Your task to perform on an android device: show emergency info Image 0: 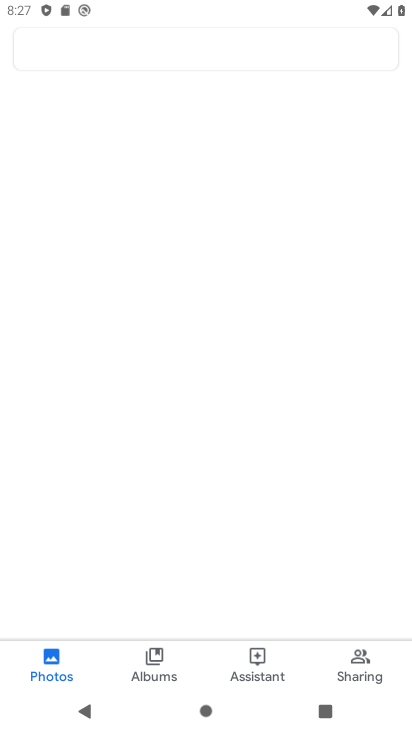
Step 0: click (247, 116)
Your task to perform on an android device: show emergency info Image 1: 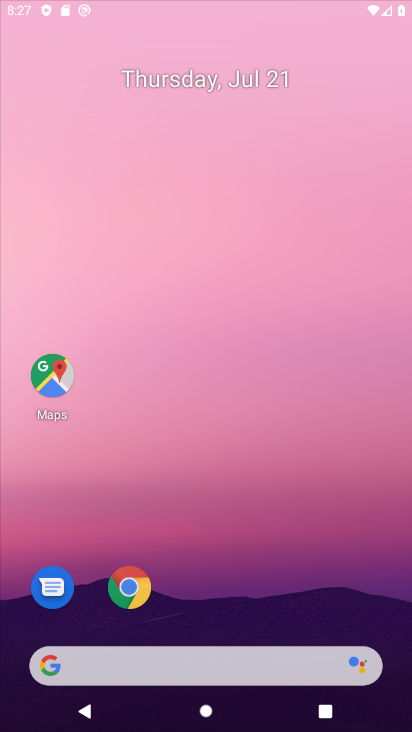
Step 1: drag from (167, 221) to (159, 99)
Your task to perform on an android device: show emergency info Image 2: 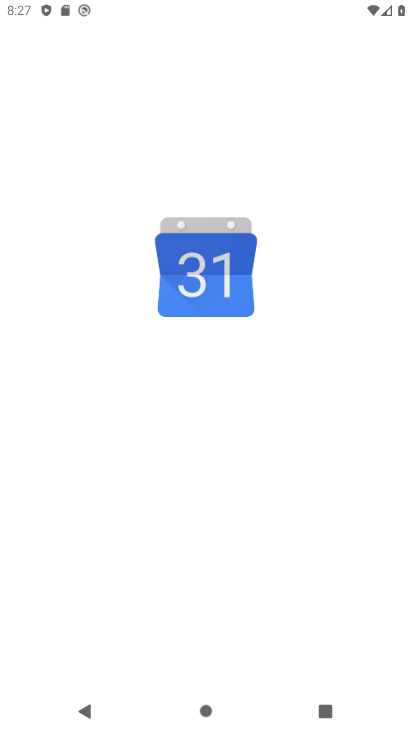
Step 2: drag from (192, 587) to (234, 211)
Your task to perform on an android device: show emergency info Image 3: 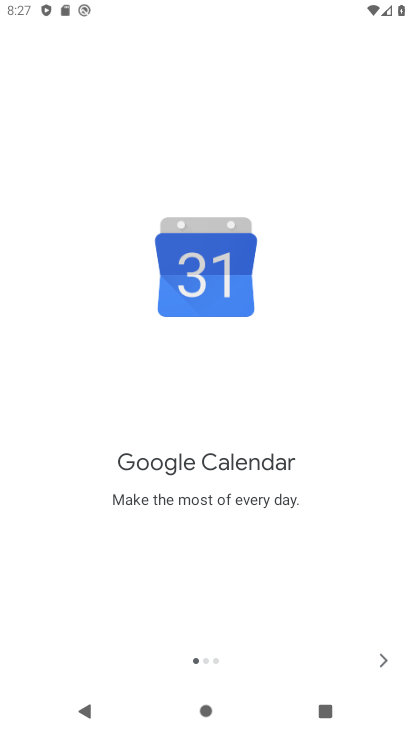
Step 3: press back button
Your task to perform on an android device: show emergency info Image 4: 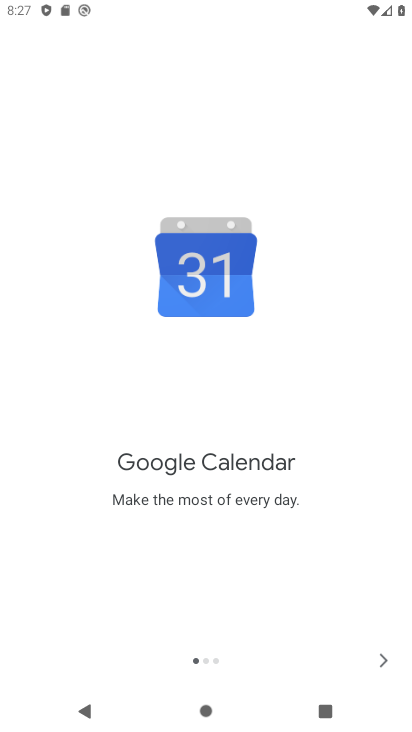
Step 4: press back button
Your task to perform on an android device: show emergency info Image 5: 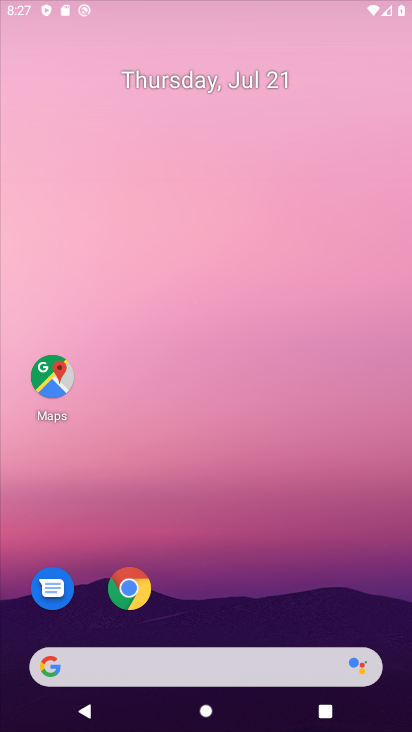
Step 5: press back button
Your task to perform on an android device: show emergency info Image 6: 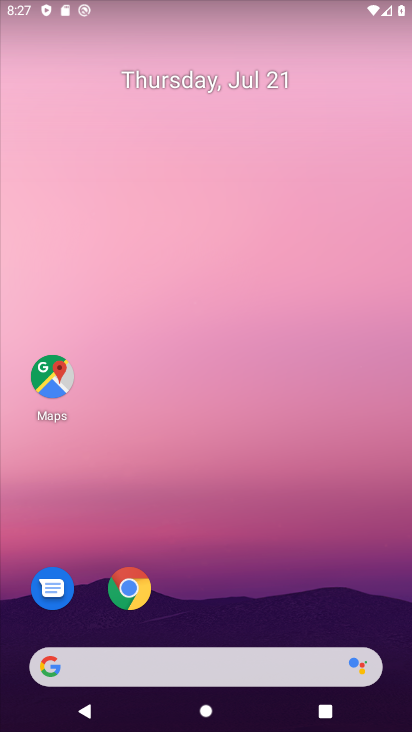
Step 6: drag from (284, 540) to (247, 150)
Your task to perform on an android device: show emergency info Image 7: 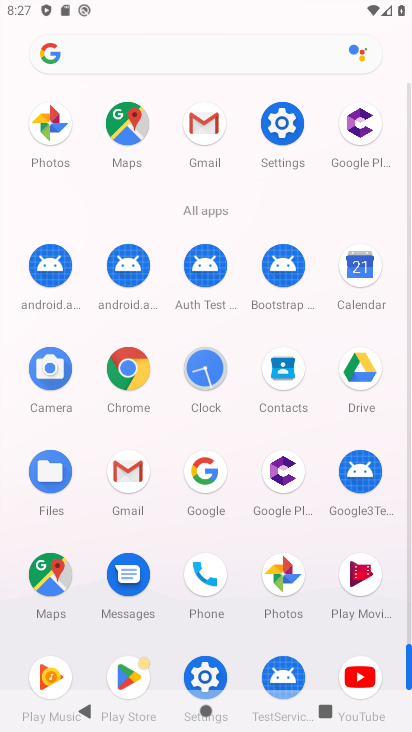
Step 7: click (300, 118)
Your task to perform on an android device: show emergency info Image 8: 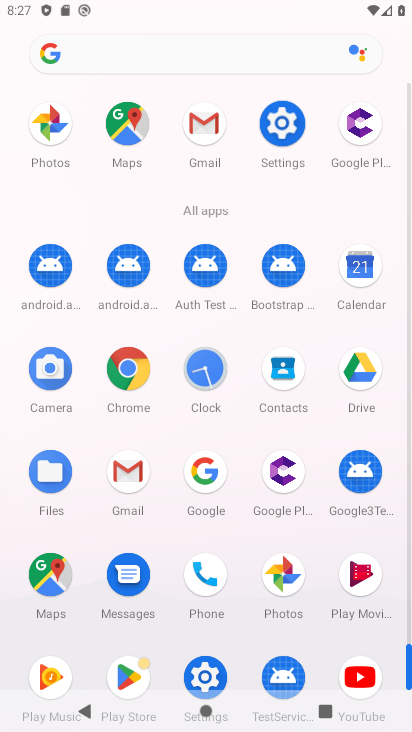
Step 8: click (275, 122)
Your task to perform on an android device: show emergency info Image 9: 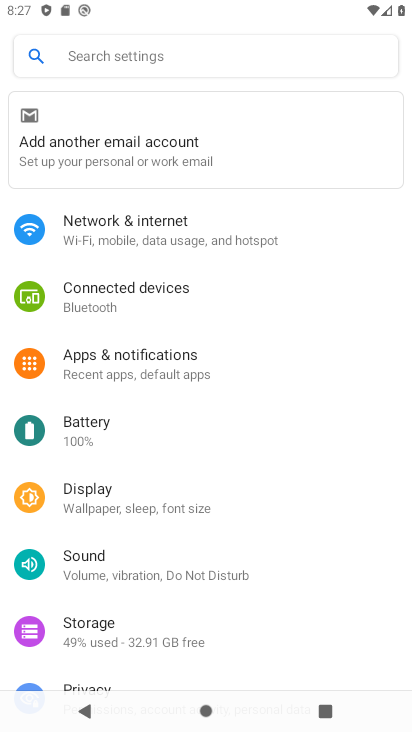
Step 9: drag from (150, 657) to (204, 236)
Your task to perform on an android device: show emergency info Image 10: 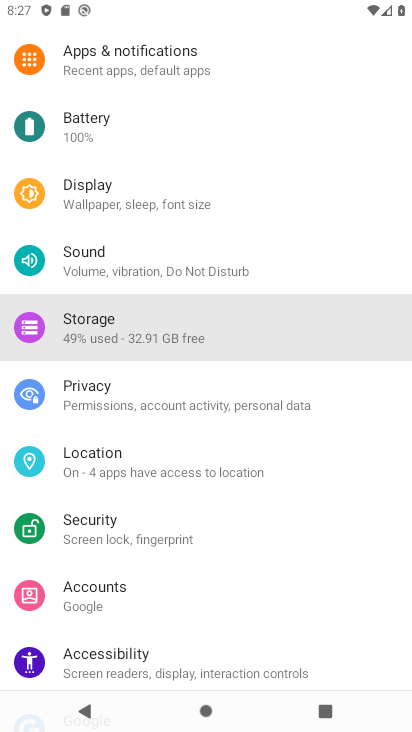
Step 10: drag from (171, 491) to (157, 161)
Your task to perform on an android device: show emergency info Image 11: 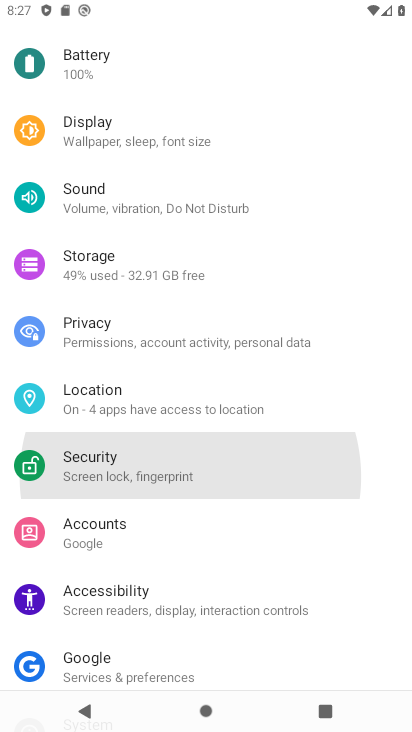
Step 11: drag from (116, 498) to (116, 224)
Your task to perform on an android device: show emergency info Image 12: 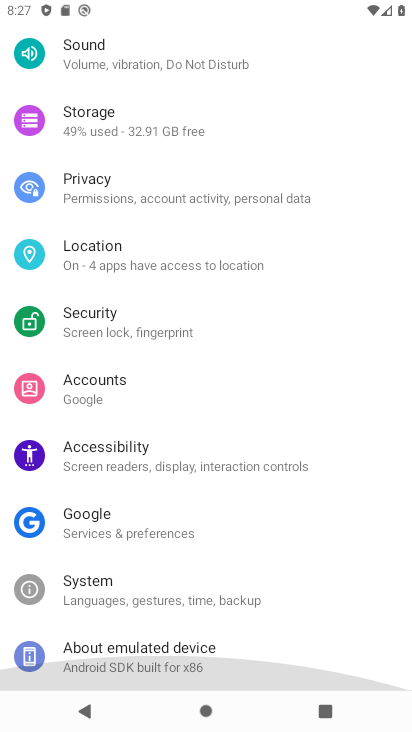
Step 12: drag from (121, 488) to (148, 244)
Your task to perform on an android device: show emergency info Image 13: 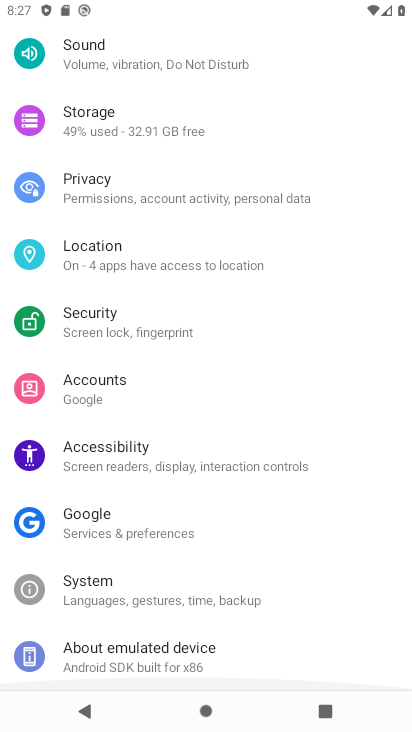
Step 13: click (141, 661)
Your task to perform on an android device: show emergency info Image 14: 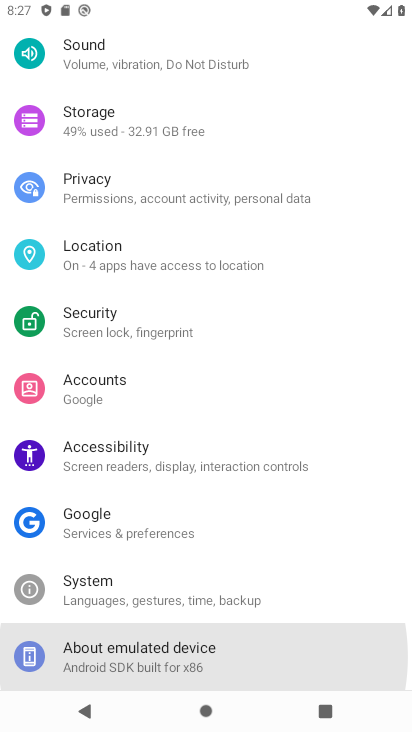
Step 14: click (140, 662)
Your task to perform on an android device: show emergency info Image 15: 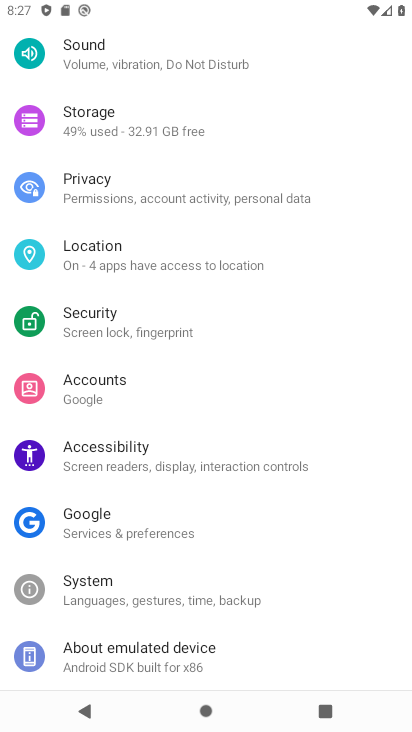
Step 15: click (139, 663)
Your task to perform on an android device: show emergency info Image 16: 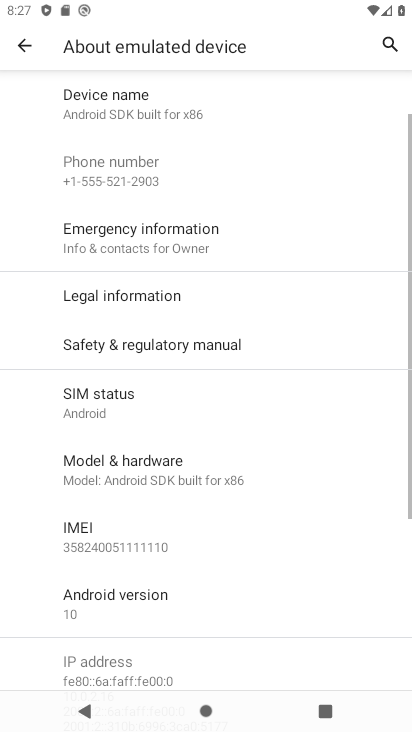
Step 16: click (117, 242)
Your task to perform on an android device: show emergency info Image 17: 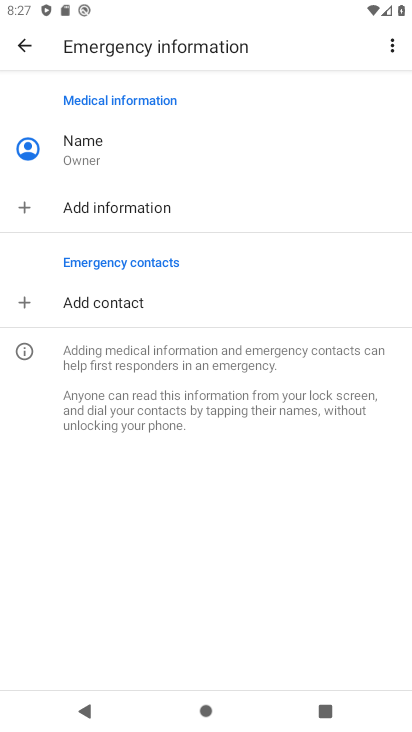
Step 17: task complete